Your task to perform on an android device: turn off priority inbox in the gmail app Image 0: 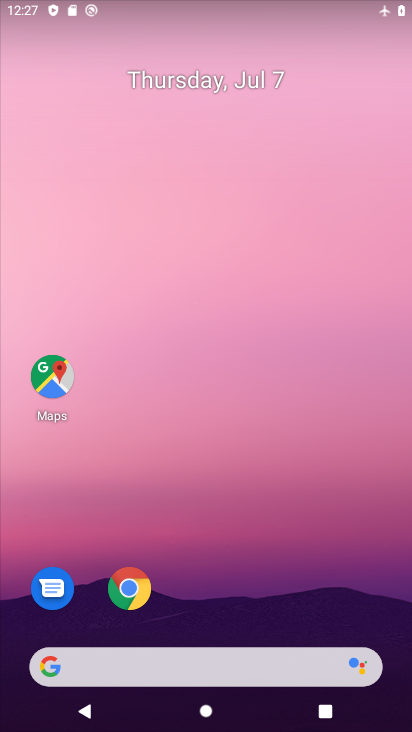
Step 0: drag from (208, 622) to (238, 91)
Your task to perform on an android device: turn off priority inbox in the gmail app Image 1: 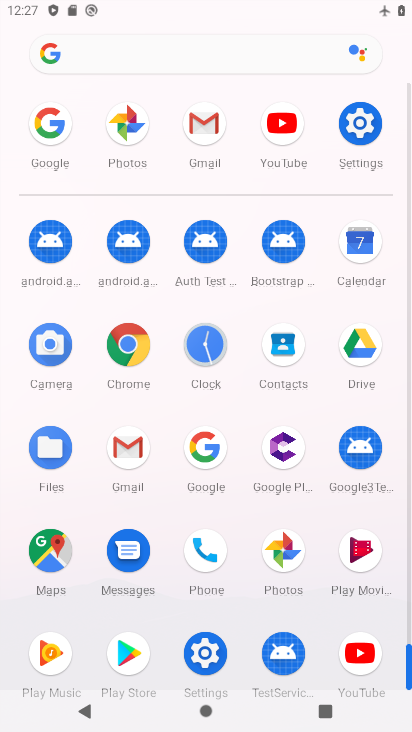
Step 1: click (119, 459)
Your task to perform on an android device: turn off priority inbox in the gmail app Image 2: 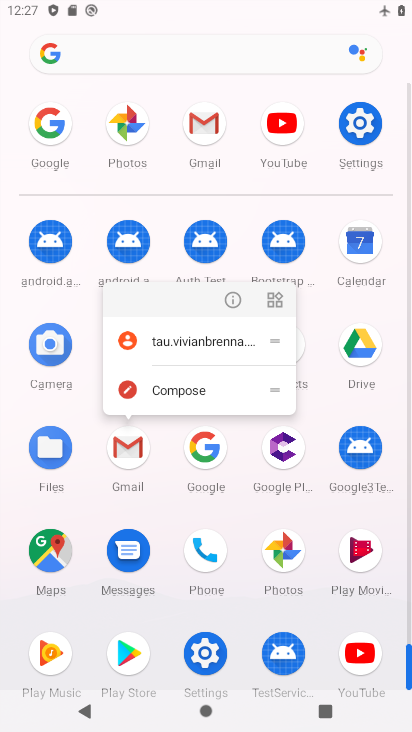
Step 2: click (223, 291)
Your task to perform on an android device: turn off priority inbox in the gmail app Image 3: 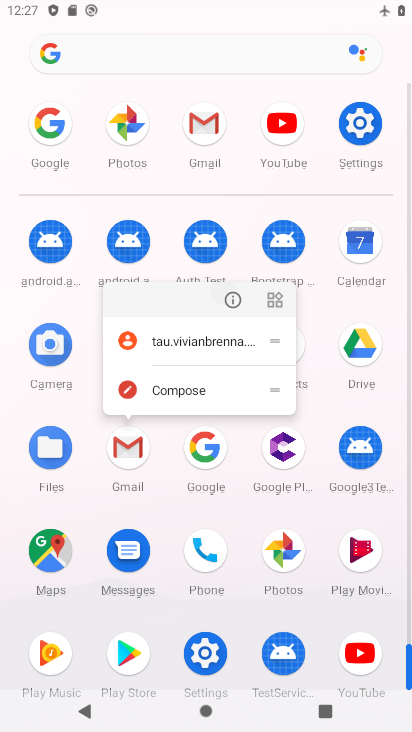
Step 3: click (223, 291)
Your task to perform on an android device: turn off priority inbox in the gmail app Image 4: 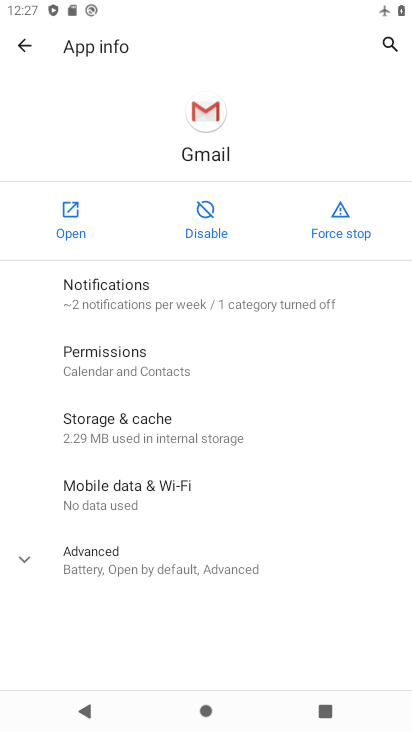
Step 4: click (74, 213)
Your task to perform on an android device: turn off priority inbox in the gmail app Image 5: 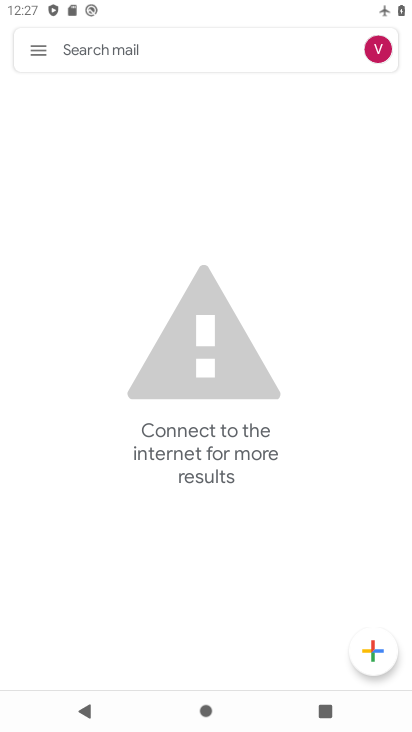
Step 5: drag from (200, 556) to (273, 208)
Your task to perform on an android device: turn off priority inbox in the gmail app Image 6: 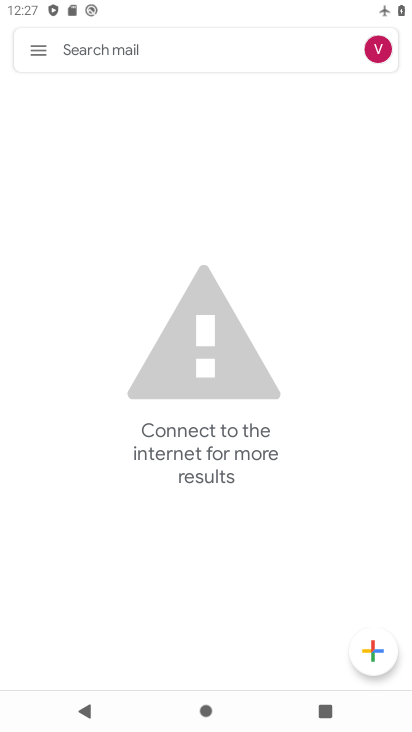
Step 6: click (43, 44)
Your task to perform on an android device: turn off priority inbox in the gmail app Image 7: 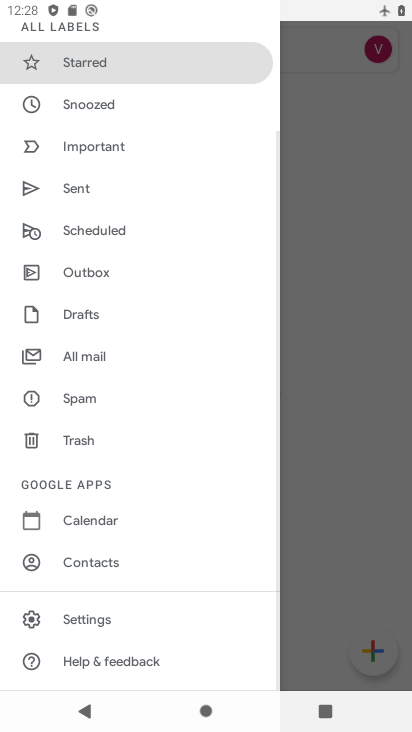
Step 7: click (87, 621)
Your task to perform on an android device: turn off priority inbox in the gmail app Image 8: 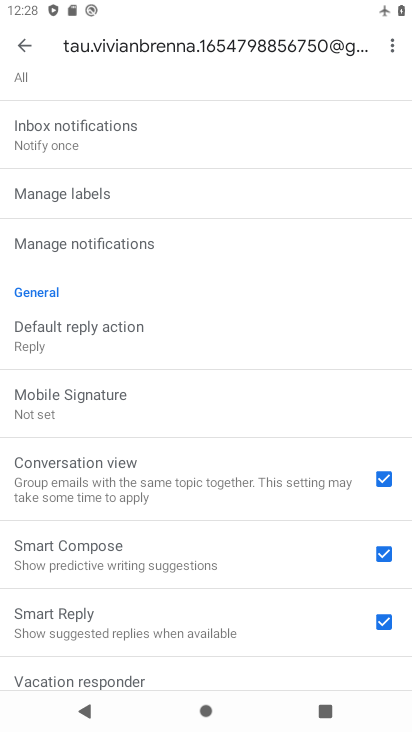
Step 8: drag from (190, 542) to (226, 237)
Your task to perform on an android device: turn off priority inbox in the gmail app Image 9: 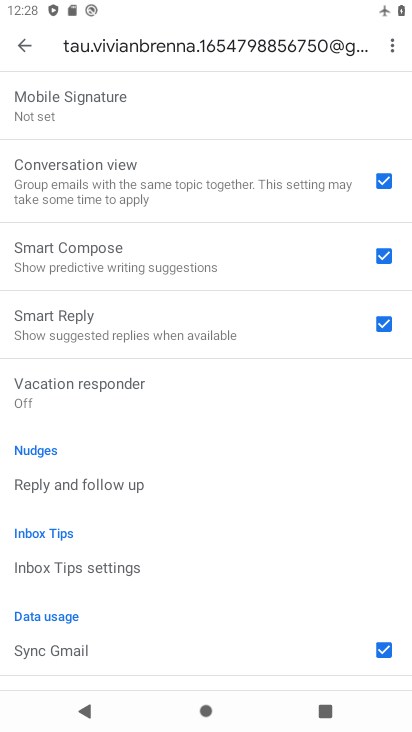
Step 9: drag from (144, 512) to (192, 257)
Your task to perform on an android device: turn off priority inbox in the gmail app Image 10: 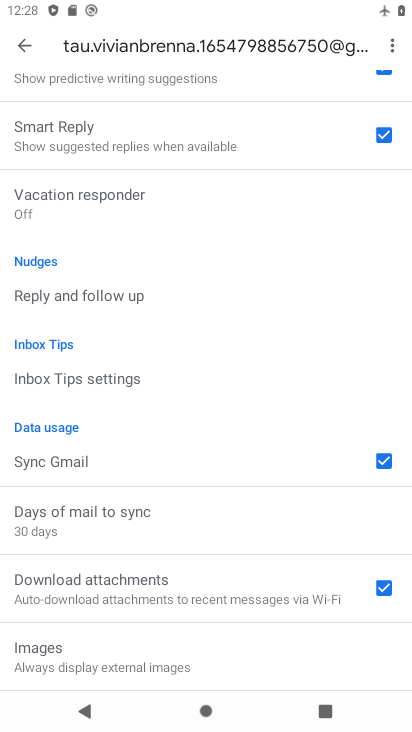
Step 10: drag from (138, 598) to (232, 252)
Your task to perform on an android device: turn off priority inbox in the gmail app Image 11: 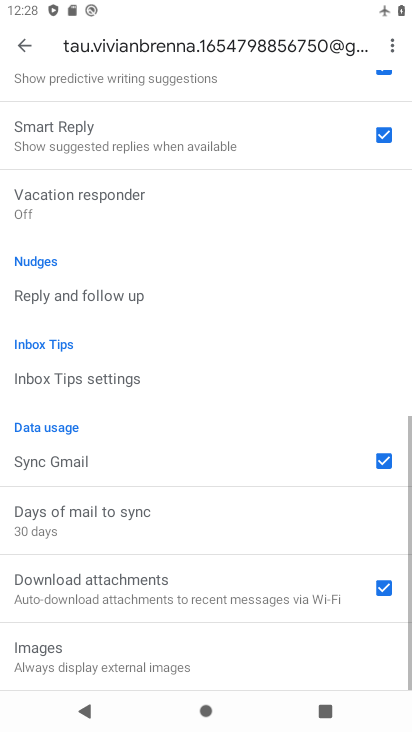
Step 11: drag from (213, 281) to (239, 728)
Your task to perform on an android device: turn off priority inbox in the gmail app Image 12: 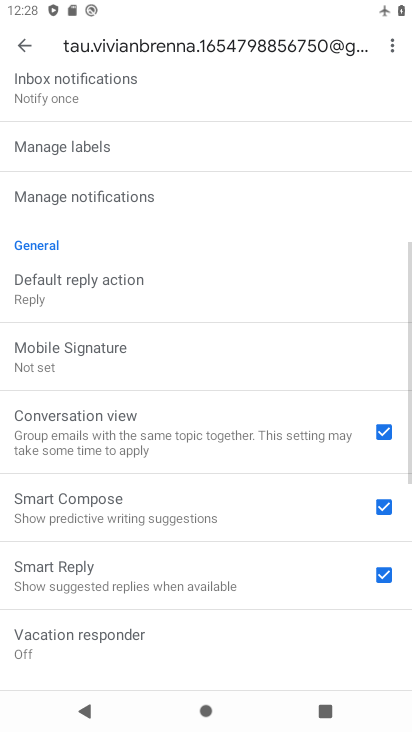
Step 12: drag from (138, 172) to (197, 505)
Your task to perform on an android device: turn off priority inbox in the gmail app Image 13: 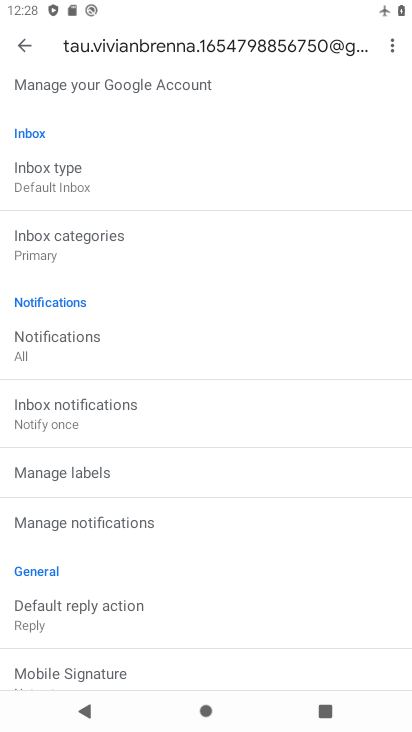
Step 13: click (92, 179)
Your task to perform on an android device: turn off priority inbox in the gmail app Image 14: 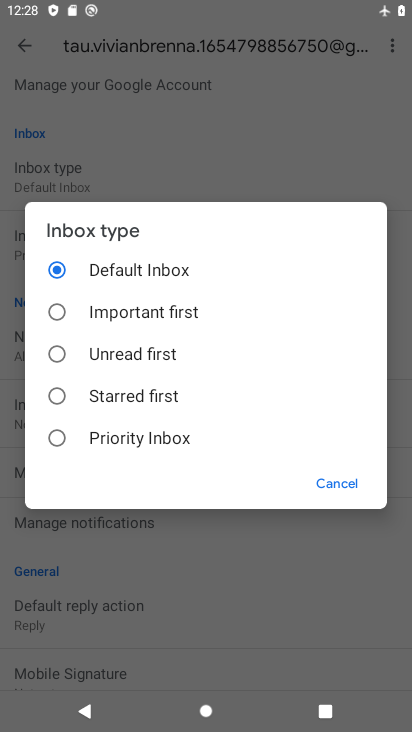
Step 14: task complete